Your task to perform on an android device: What is the recent news? Image 0: 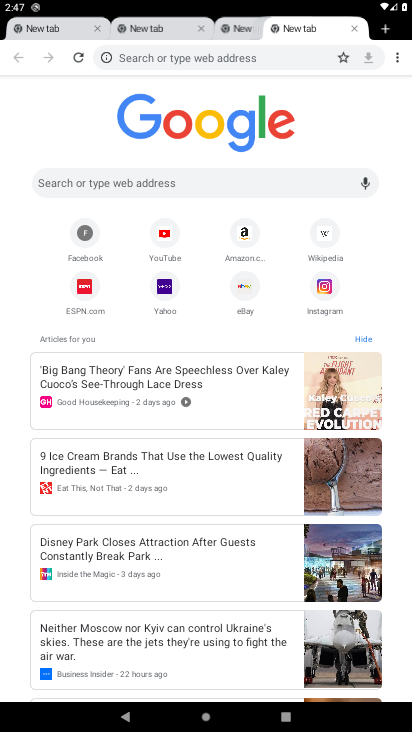
Step 0: press home button
Your task to perform on an android device: What is the recent news? Image 1: 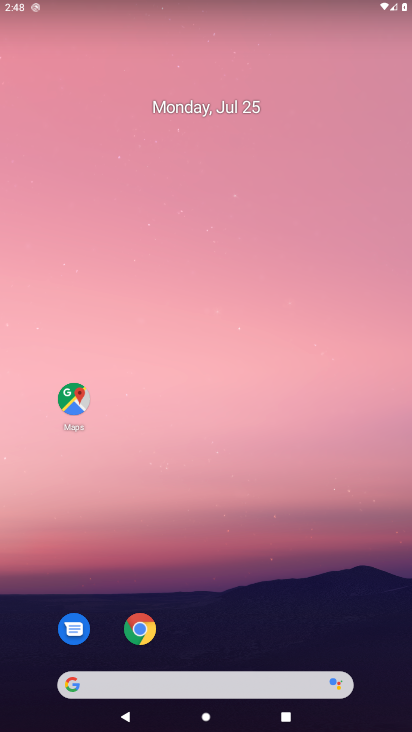
Step 1: click (141, 685)
Your task to perform on an android device: What is the recent news? Image 2: 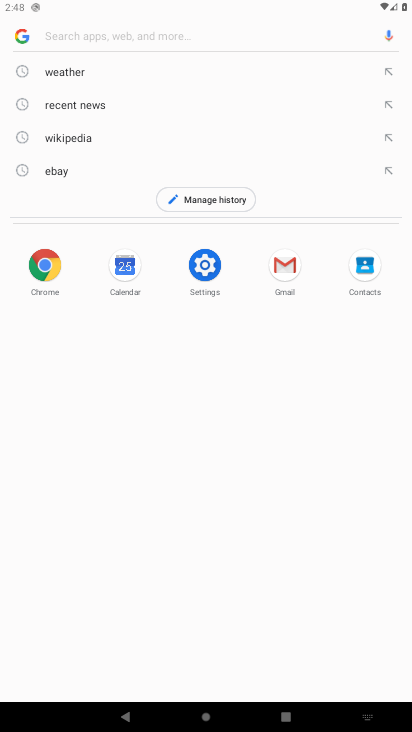
Step 2: type "What is the recent news?"
Your task to perform on an android device: What is the recent news? Image 3: 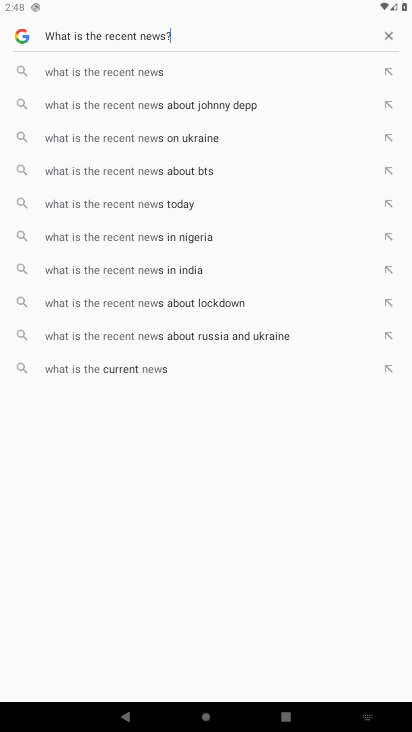
Step 3: type ""
Your task to perform on an android device: What is the recent news? Image 4: 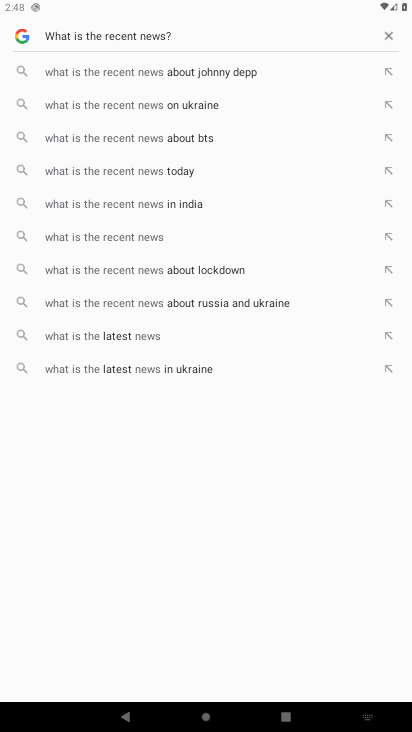
Step 4: type ""
Your task to perform on an android device: What is the recent news? Image 5: 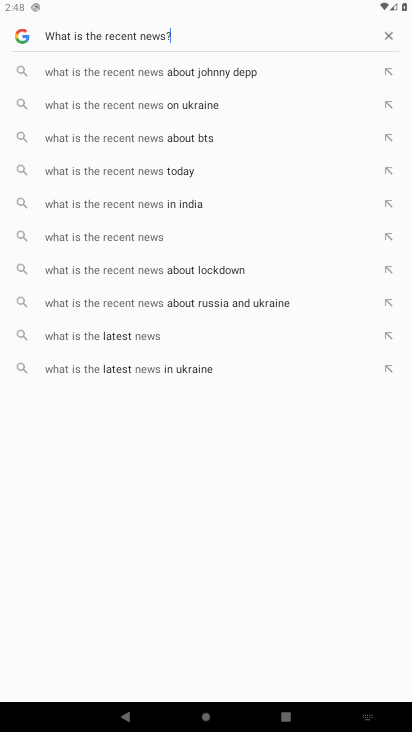
Step 5: type ""
Your task to perform on an android device: What is the recent news? Image 6: 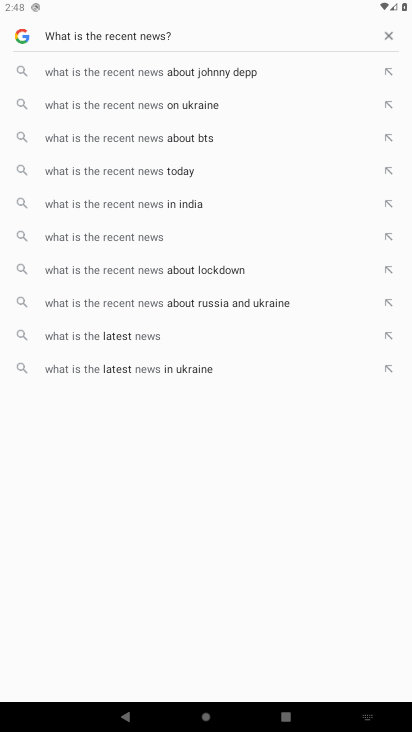
Step 6: task complete